Your task to perform on an android device: check the backup settings in the google photos Image 0: 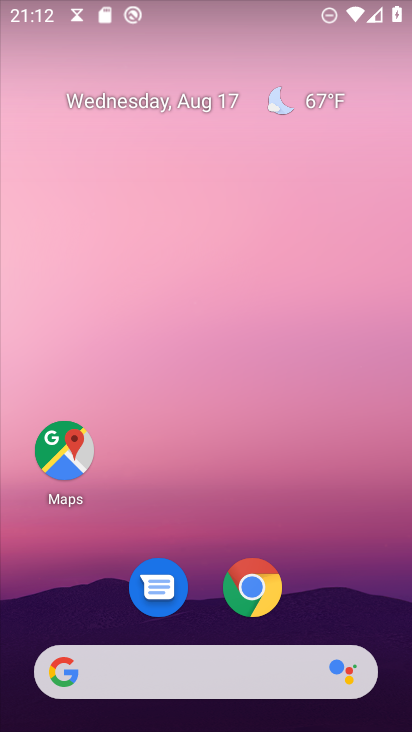
Step 0: drag from (18, 678) to (387, 138)
Your task to perform on an android device: check the backup settings in the google photos Image 1: 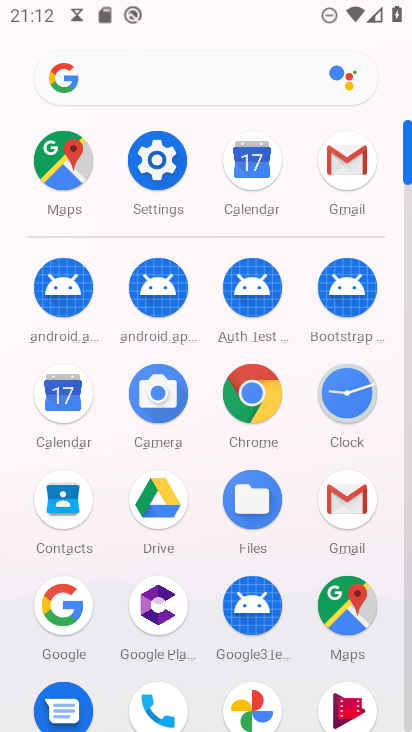
Step 1: click (247, 705)
Your task to perform on an android device: check the backup settings in the google photos Image 2: 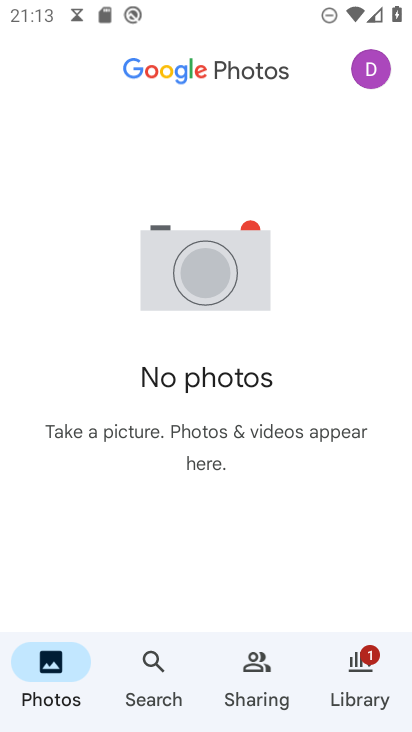
Step 2: click (371, 73)
Your task to perform on an android device: check the backup settings in the google photos Image 3: 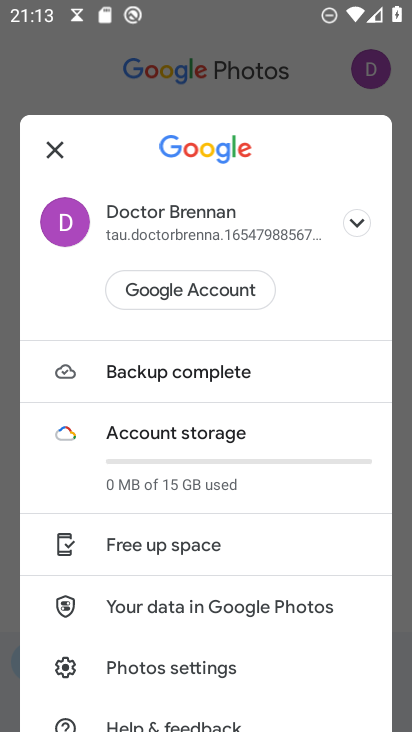
Step 3: click (181, 658)
Your task to perform on an android device: check the backup settings in the google photos Image 4: 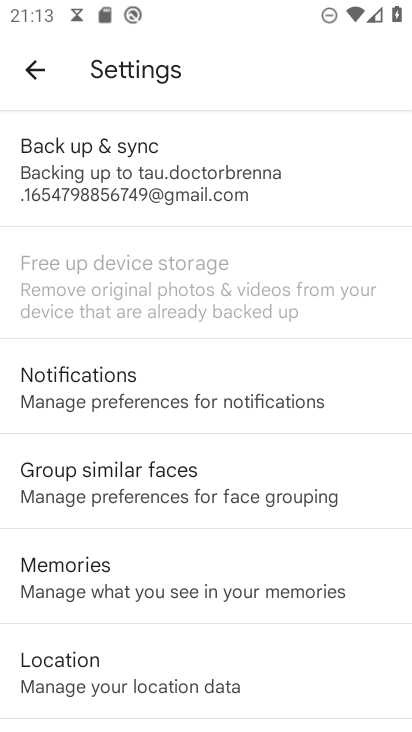
Step 4: click (220, 176)
Your task to perform on an android device: check the backup settings in the google photos Image 5: 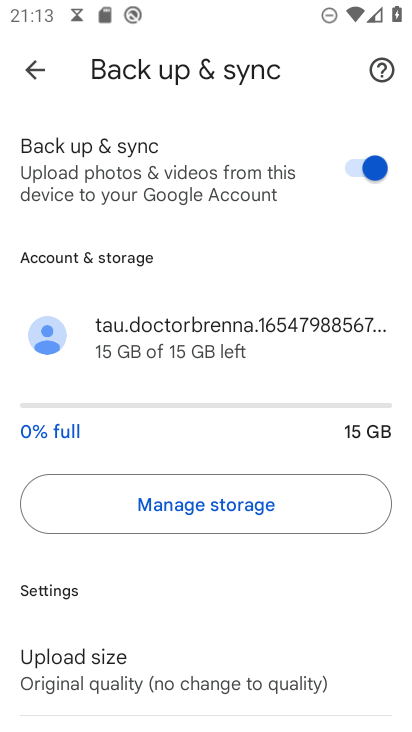
Step 5: task complete